Your task to perform on an android device: add a contact Image 0: 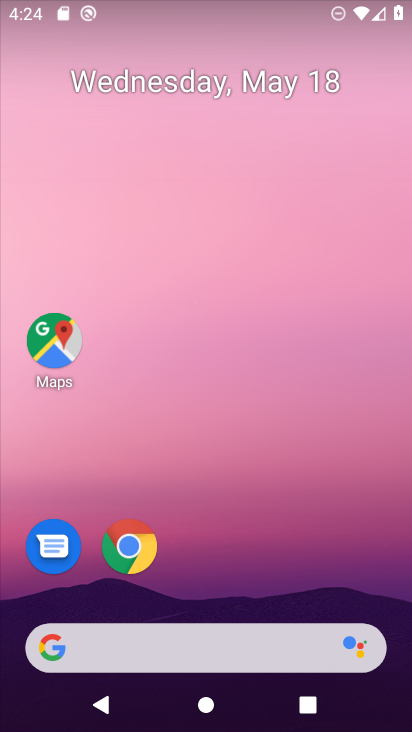
Step 0: drag from (281, 92) to (283, 24)
Your task to perform on an android device: add a contact Image 1: 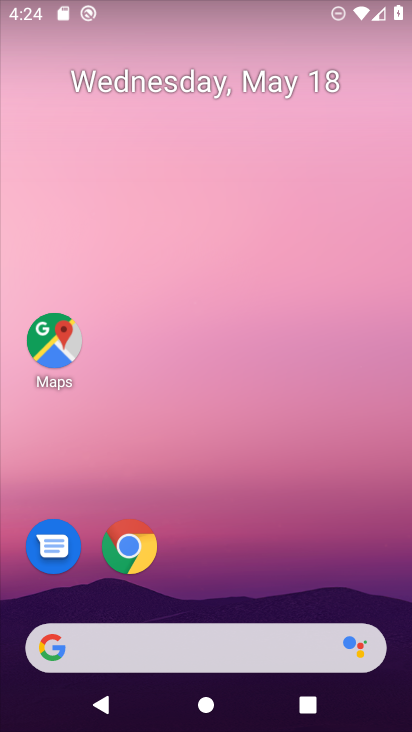
Step 1: drag from (238, 586) to (283, 38)
Your task to perform on an android device: add a contact Image 2: 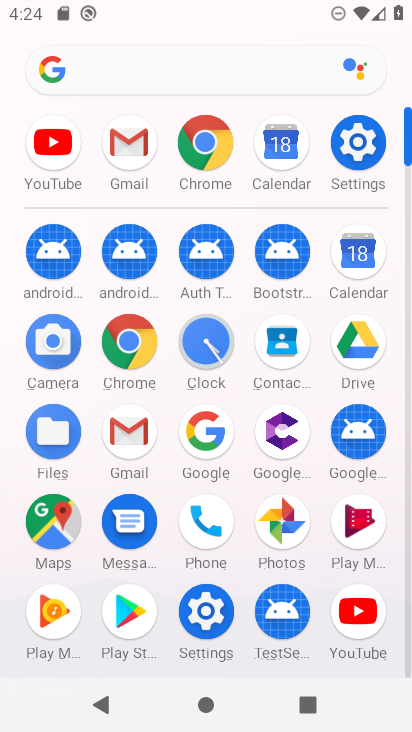
Step 2: click (285, 356)
Your task to perform on an android device: add a contact Image 3: 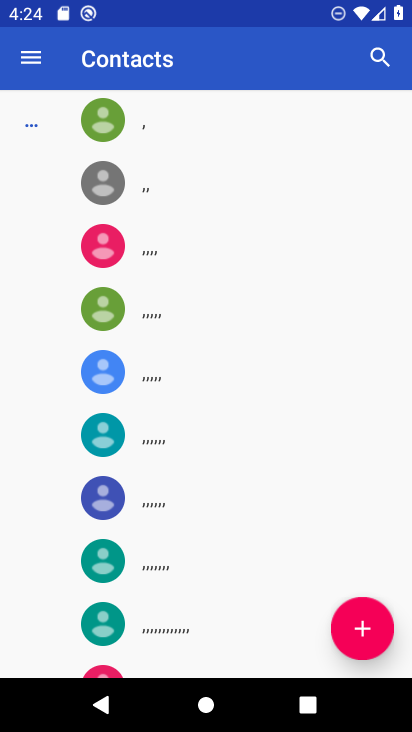
Step 3: click (367, 622)
Your task to perform on an android device: add a contact Image 4: 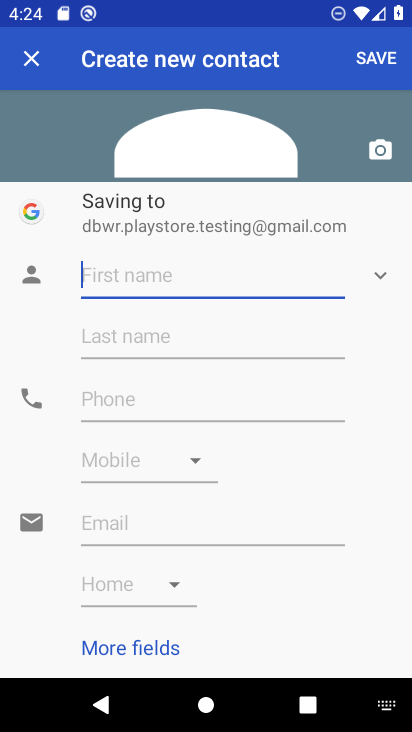
Step 4: type "mayweather"
Your task to perform on an android device: add a contact Image 5: 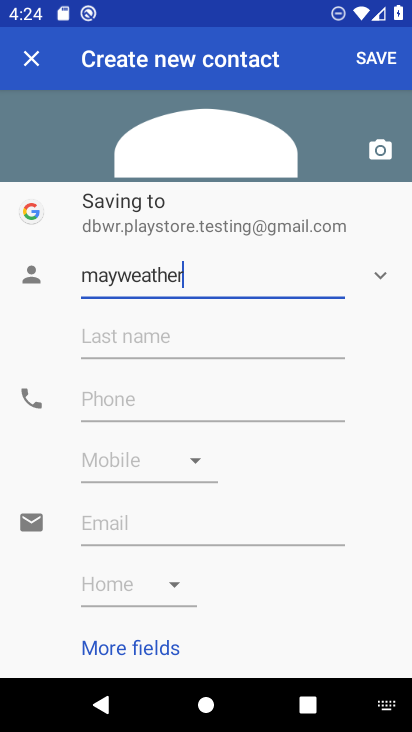
Step 5: click (387, 53)
Your task to perform on an android device: add a contact Image 6: 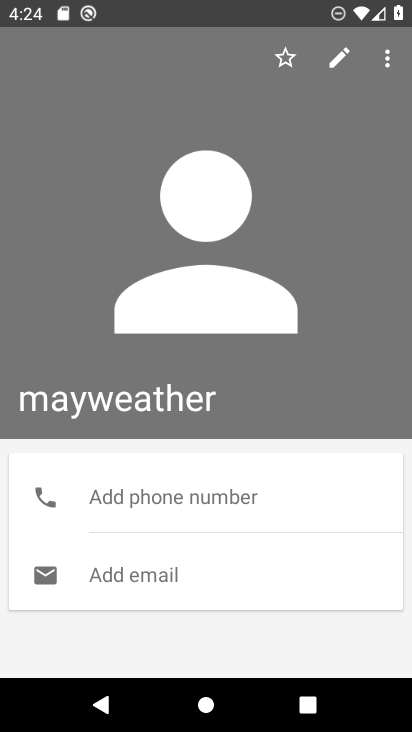
Step 6: task complete